Your task to perform on an android device: turn on bluetooth scan Image 0: 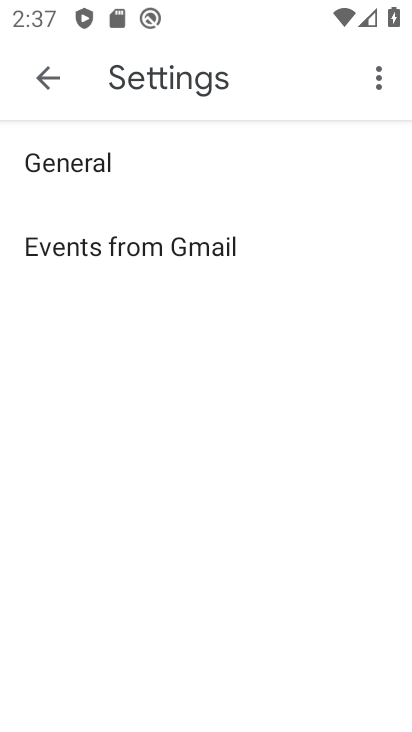
Step 0: press back button
Your task to perform on an android device: turn on bluetooth scan Image 1: 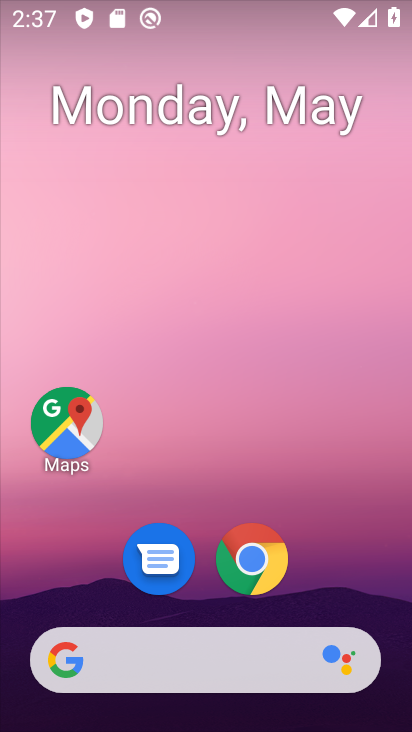
Step 1: drag from (309, 547) to (287, 9)
Your task to perform on an android device: turn on bluetooth scan Image 2: 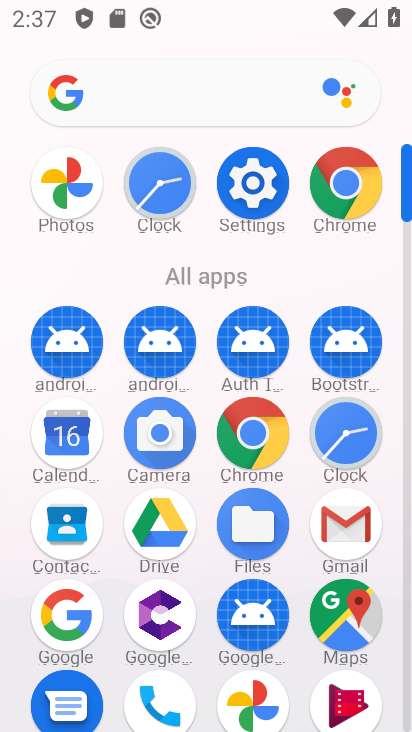
Step 2: click (255, 179)
Your task to perform on an android device: turn on bluetooth scan Image 3: 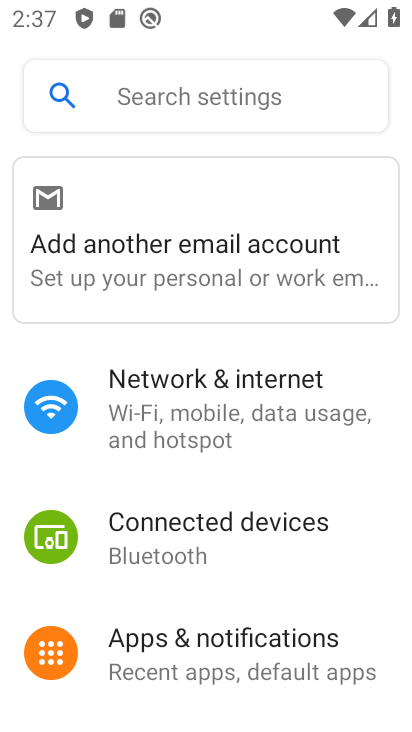
Step 3: drag from (315, 581) to (308, 198)
Your task to perform on an android device: turn on bluetooth scan Image 4: 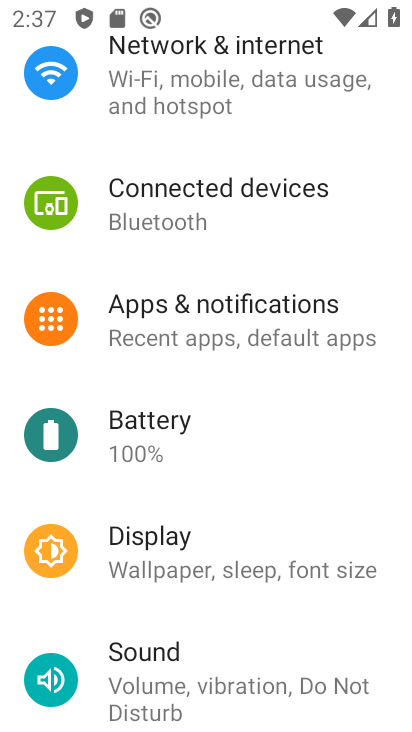
Step 4: drag from (286, 568) to (289, 175)
Your task to perform on an android device: turn on bluetooth scan Image 5: 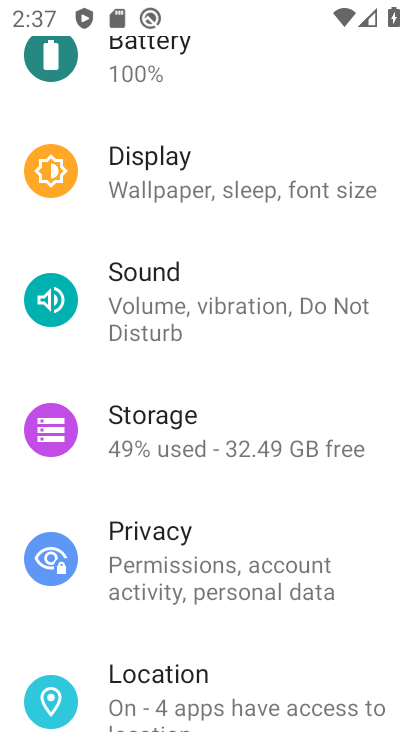
Step 5: drag from (279, 593) to (274, 220)
Your task to perform on an android device: turn on bluetooth scan Image 6: 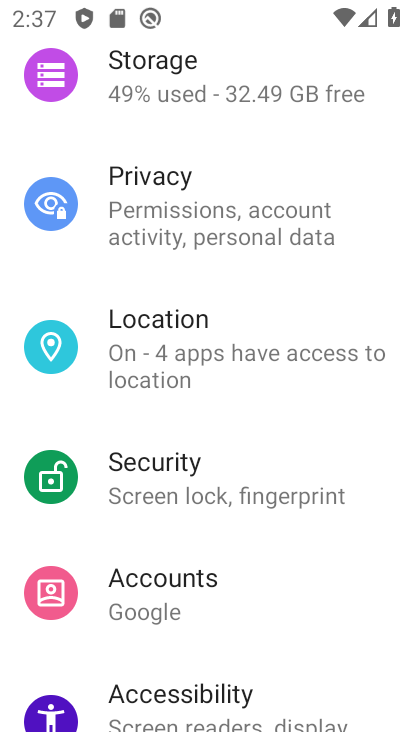
Step 6: click (203, 333)
Your task to perform on an android device: turn on bluetooth scan Image 7: 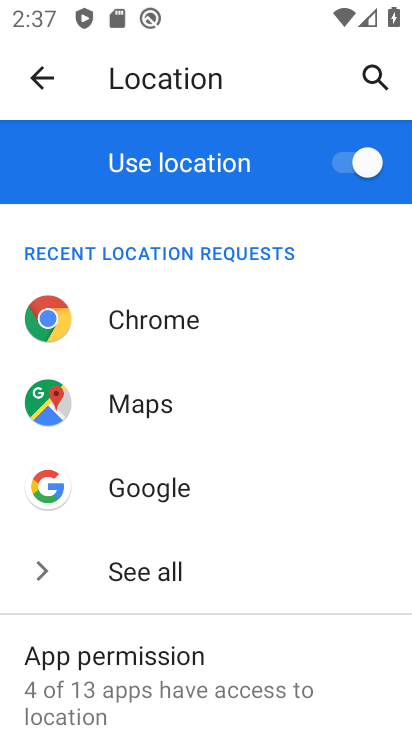
Step 7: drag from (249, 546) to (244, 114)
Your task to perform on an android device: turn on bluetooth scan Image 8: 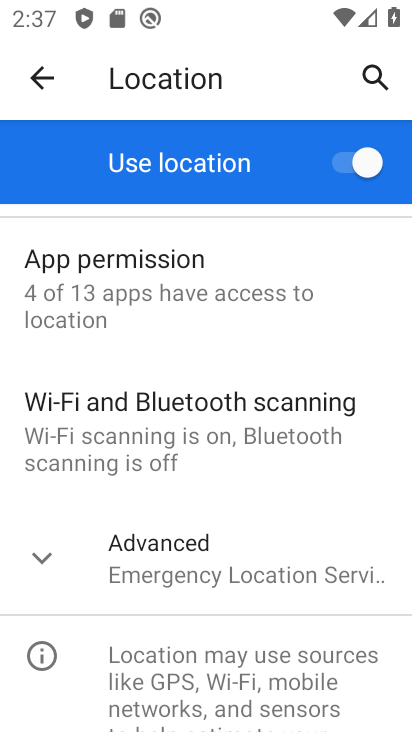
Step 8: click (207, 576)
Your task to perform on an android device: turn on bluetooth scan Image 9: 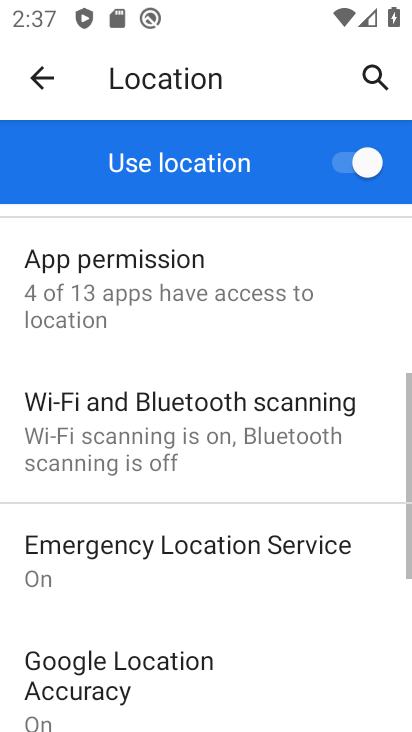
Step 9: drag from (271, 583) to (297, 181)
Your task to perform on an android device: turn on bluetooth scan Image 10: 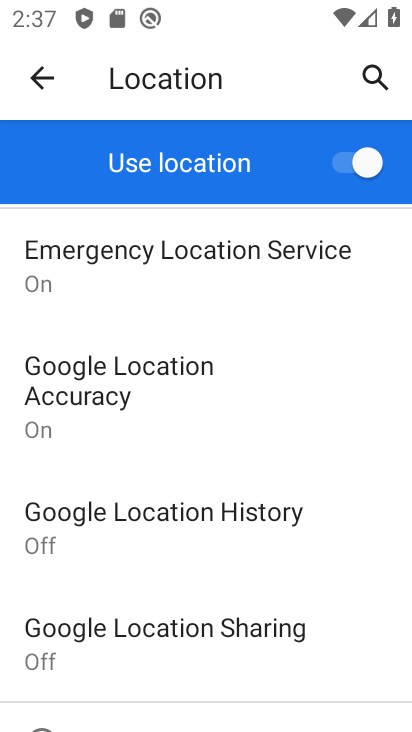
Step 10: drag from (290, 527) to (289, 164)
Your task to perform on an android device: turn on bluetooth scan Image 11: 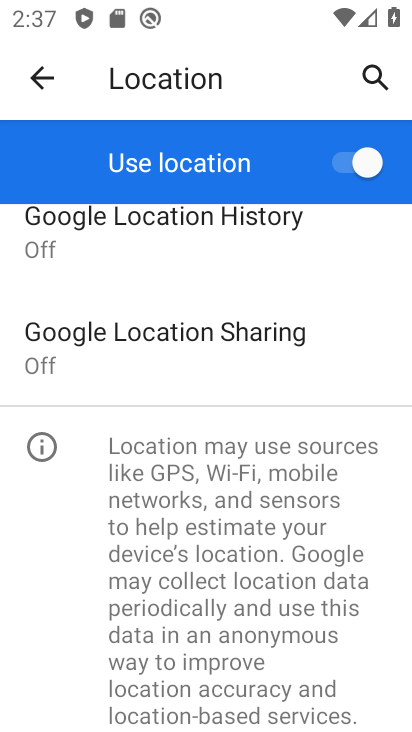
Step 11: drag from (118, 552) to (160, 173)
Your task to perform on an android device: turn on bluetooth scan Image 12: 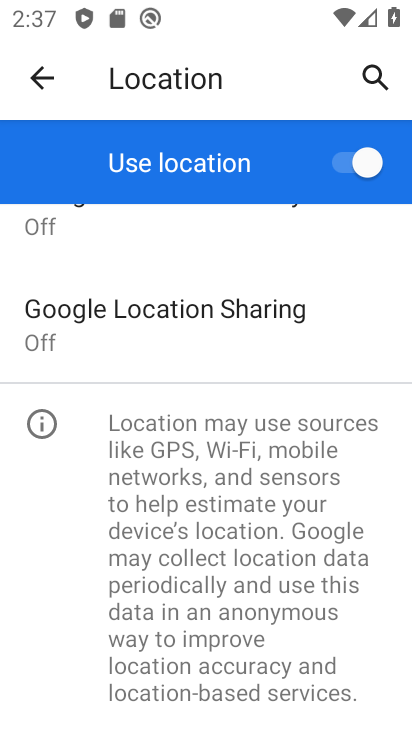
Step 12: click (40, 66)
Your task to perform on an android device: turn on bluetooth scan Image 13: 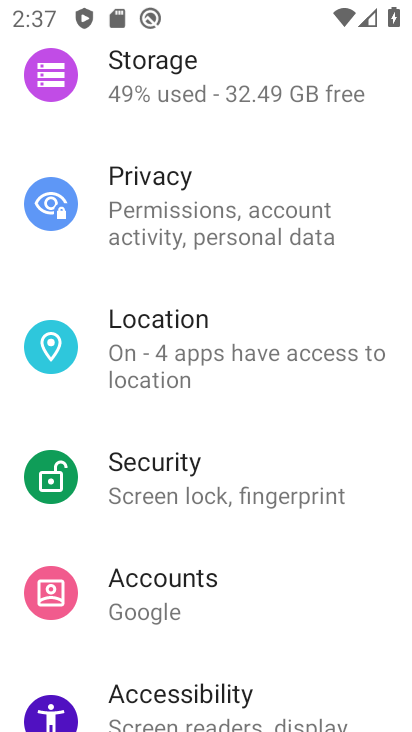
Step 13: click (199, 339)
Your task to perform on an android device: turn on bluetooth scan Image 14: 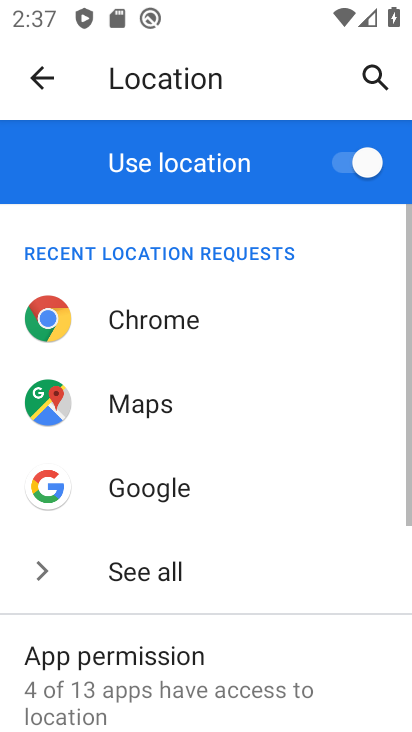
Step 14: drag from (247, 598) to (248, 172)
Your task to perform on an android device: turn on bluetooth scan Image 15: 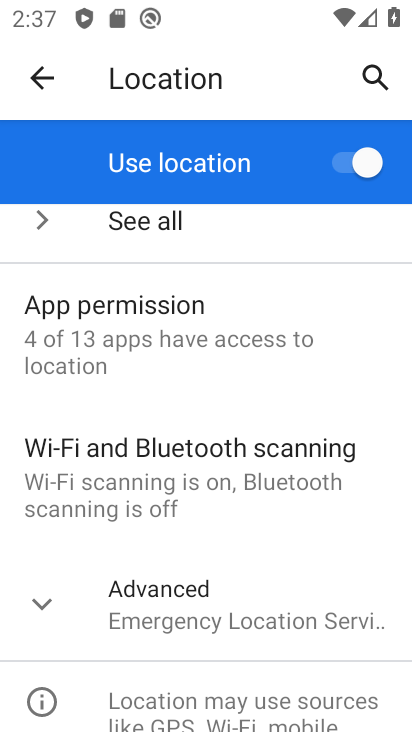
Step 15: click (228, 620)
Your task to perform on an android device: turn on bluetooth scan Image 16: 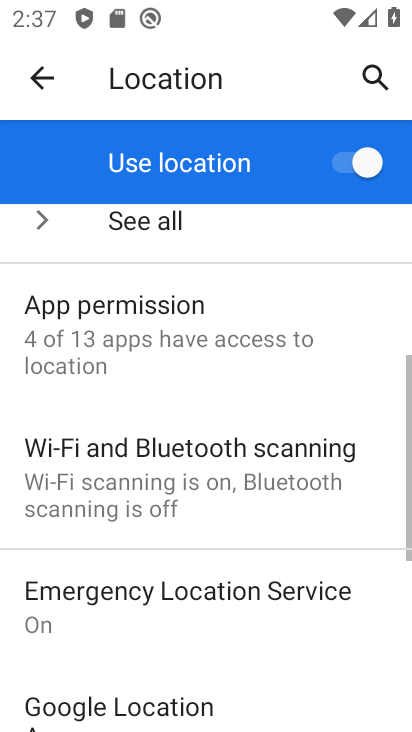
Step 16: drag from (262, 588) to (283, 215)
Your task to perform on an android device: turn on bluetooth scan Image 17: 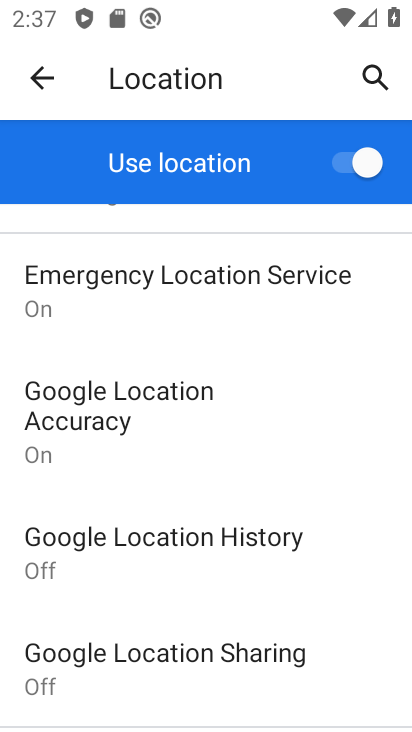
Step 17: drag from (262, 545) to (255, 189)
Your task to perform on an android device: turn on bluetooth scan Image 18: 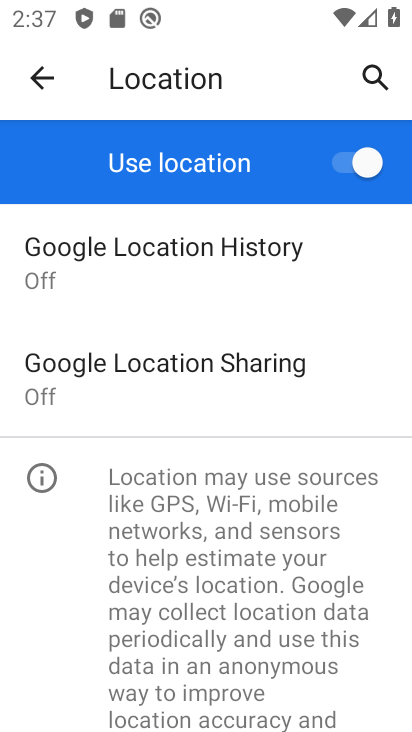
Step 18: drag from (264, 310) to (275, 676)
Your task to perform on an android device: turn on bluetooth scan Image 19: 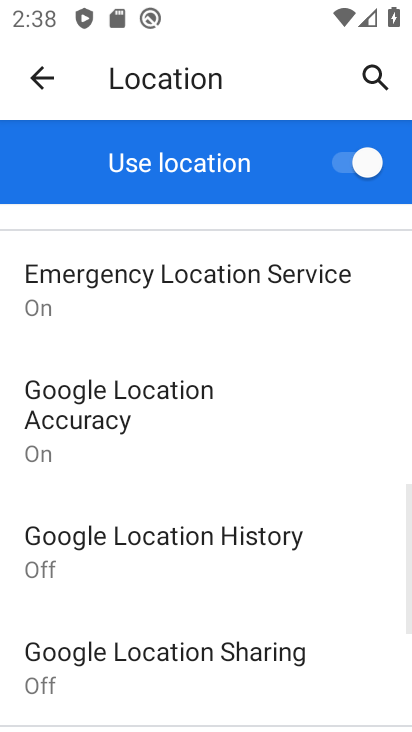
Step 19: drag from (240, 265) to (238, 649)
Your task to perform on an android device: turn on bluetooth scan Image 20: 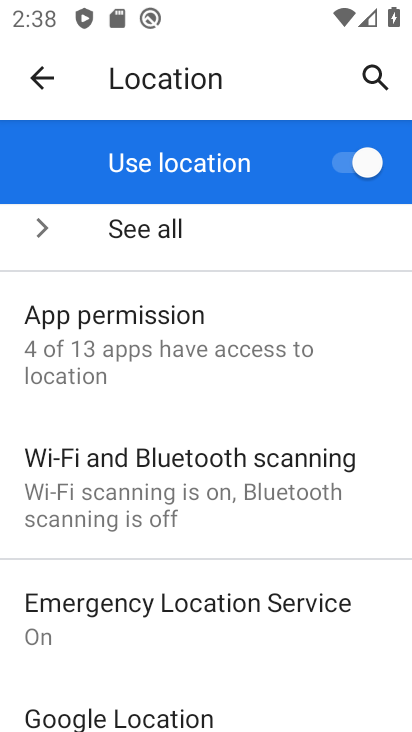
Step 20: click (233, 493)
Your task to perform on an android device: turn on bluetooth scan Image 21: 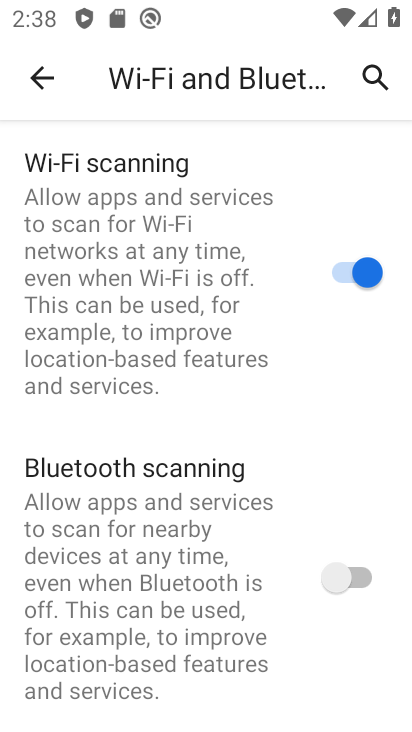
Step 21: click (365, 550)
Your task to perform on an android device: turn on bluetooth scan Image 22: 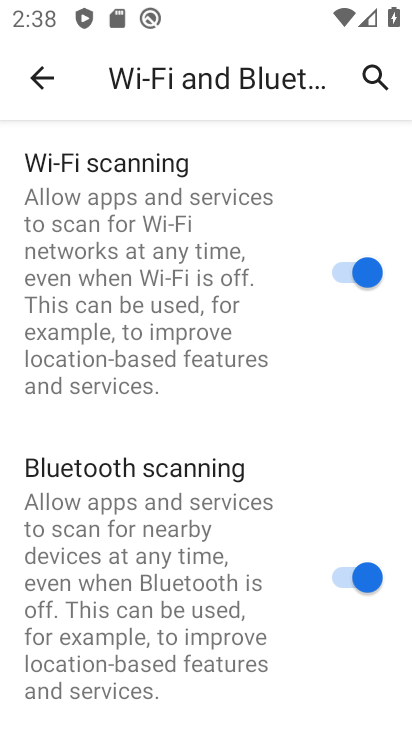
Step 22: task complete